Your task to perform on an android device: toggle improve location accuracy Image 0: 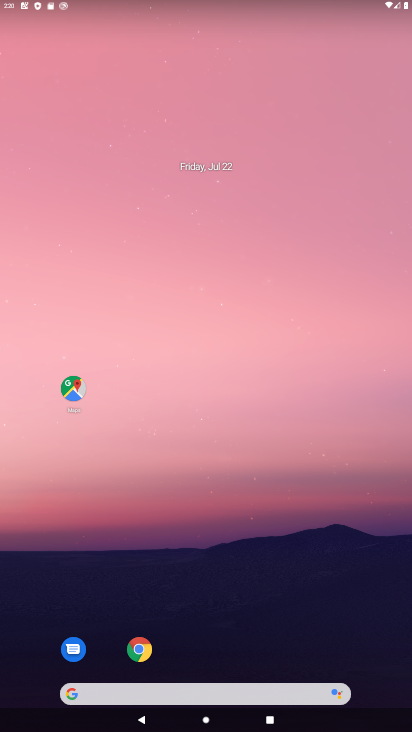
Step 0: drag from (187, 655) to (257, 30)
Your task to perform on an android device: toggle improve location accuracy Image 1: 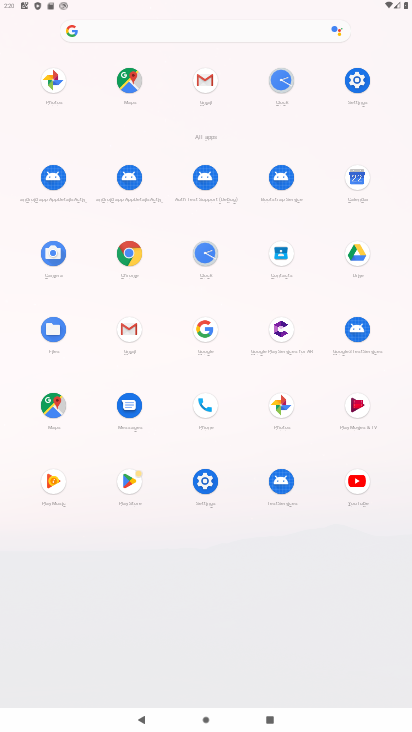
Step 1: click (204, 476)
Your task to perform on an android device: toggle improve location accuracy Image 2: 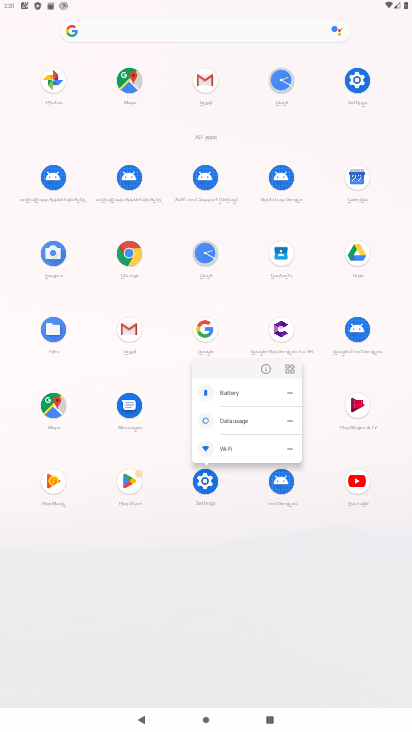
Step 2: click (258, 369)
Your task to perform on an android device: toggle improve location accuracy Image 3: 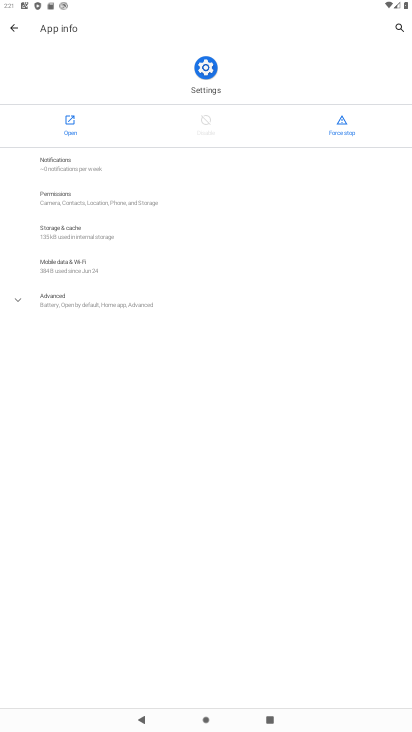
Step 3: click (67, 135)
Your task to perform on an android device: toggle improve location accuracy Image 4: 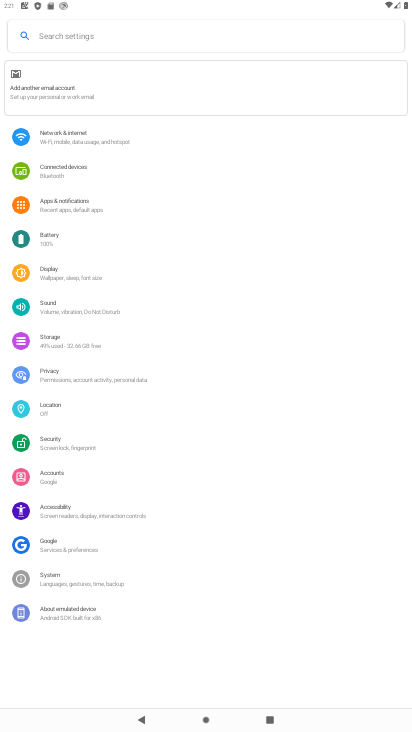
Step 4: click (67, 404)
Your task to perform on an android device: toggle improve location accuracy Image 5: 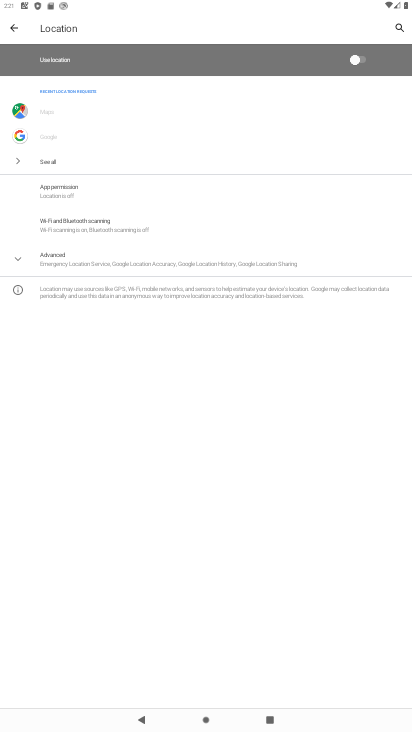
Step 5: click (64, 263)
Your task to perform on an android device: toggle improve location accuracy Image 6: 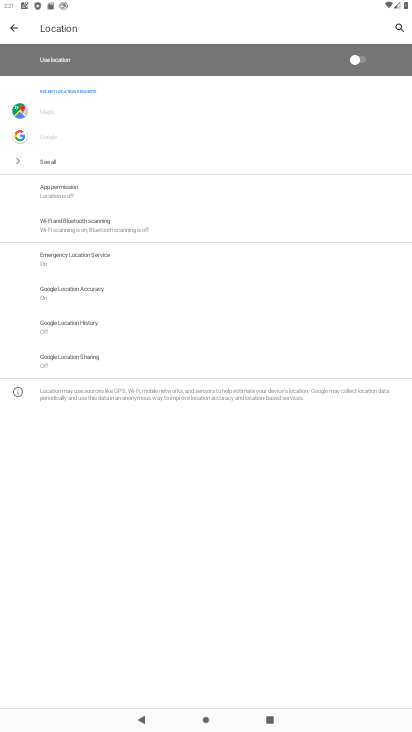
Step 6: click (106, 300)
Your task to perform on an android device: toggle improve location accuracy Image 7: 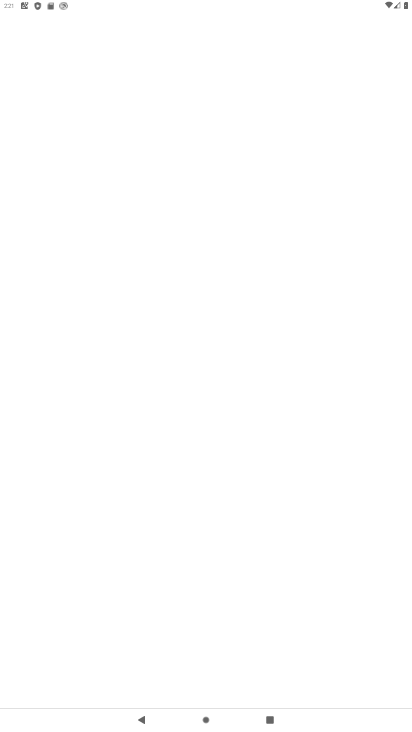
Step 7: task complete